Your task to perform on an android device: see tabs open on other devices in the chrome app Image 0: 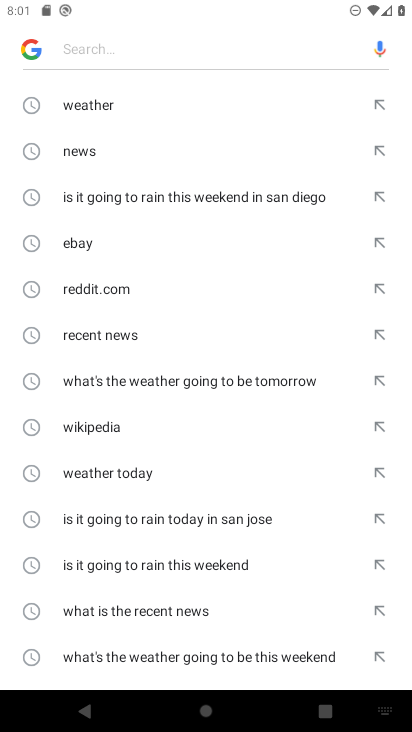
Step 0: press home button
Your task to perform on an android device: see tabs open on other devices in the chrome app Image 1: 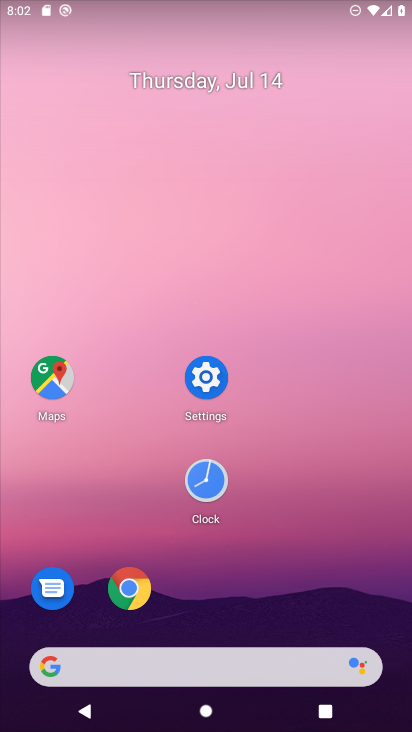
Step 1: click (124, 579)
Your task to perform on an android device: see tabs open on other devices in the chrome app Image 2: 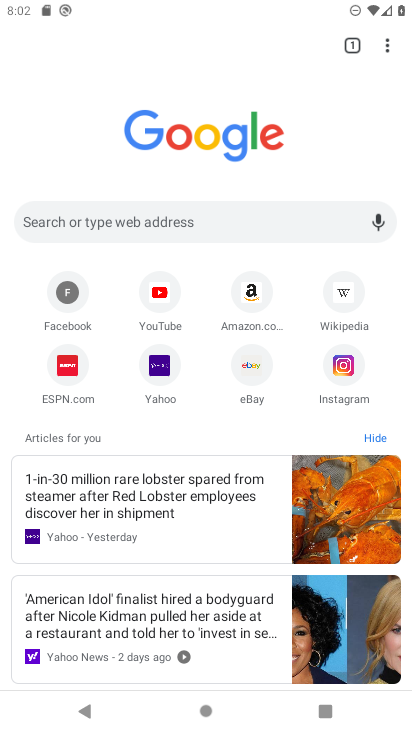
Step 2: click (383, 45)
Your task to perform on an android device: see tabs open on other devices in the chrome app Image 3: 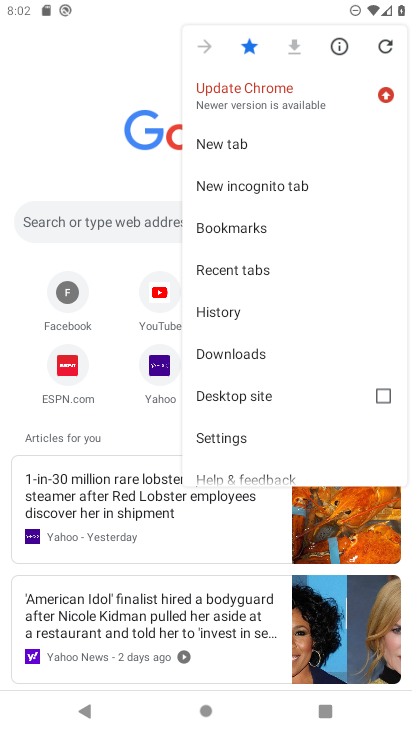
Step 3: click (234, 266)
Your task to perform on an android device: see tabs open on other devices in the chrome app Image 4: 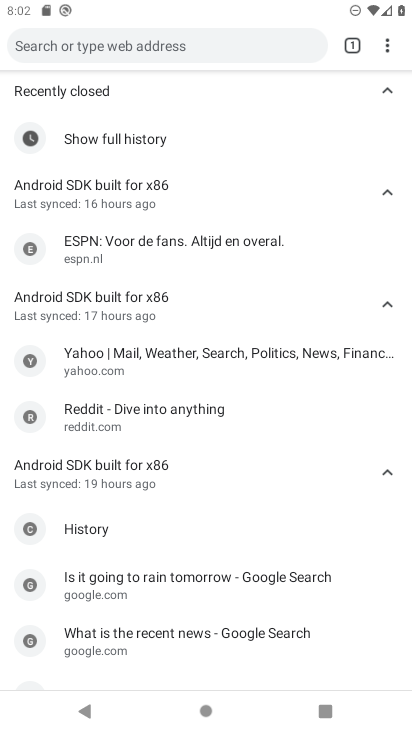
Step 4: task complete